Your task to perform on an android device: change the upload size in google photos Image 0: 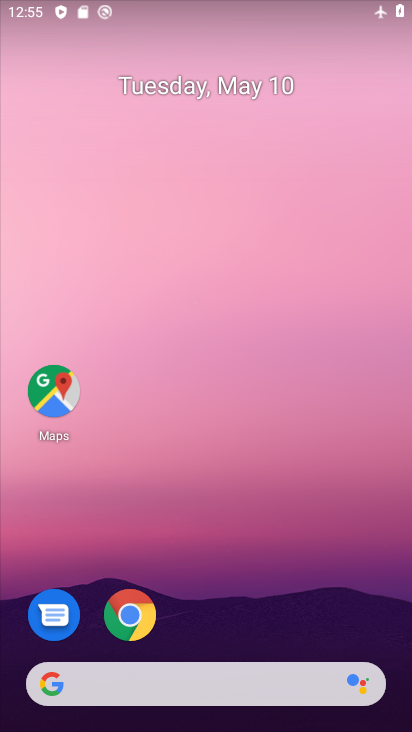
Step 0: drag from (235, 638) to (284, 81)
Your task to perform on an android device: change the upload size in google photos Image 1: 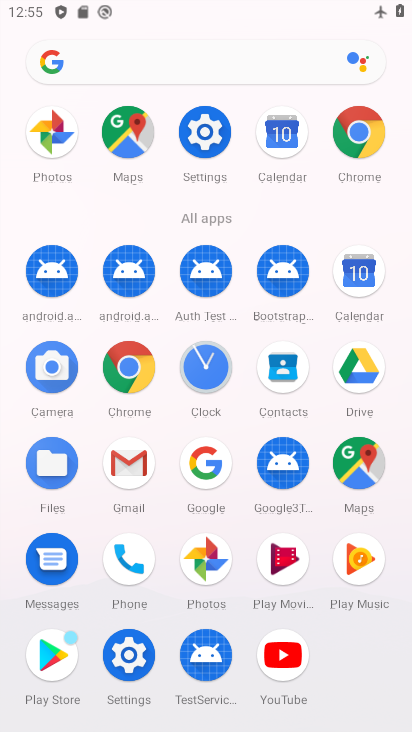
Step 1: click (201, 549)
Your task to perform on an android device: change the upload size in google photos Image 2: 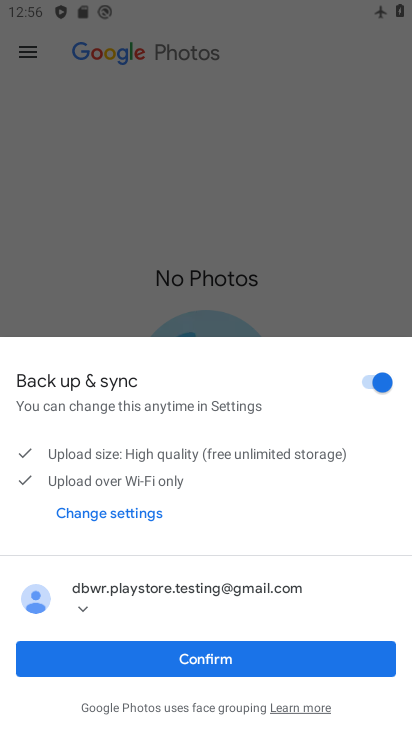
Step 2: click (221, 661)
Your task to perform on an android device: change the upload size in google photos Image 3: 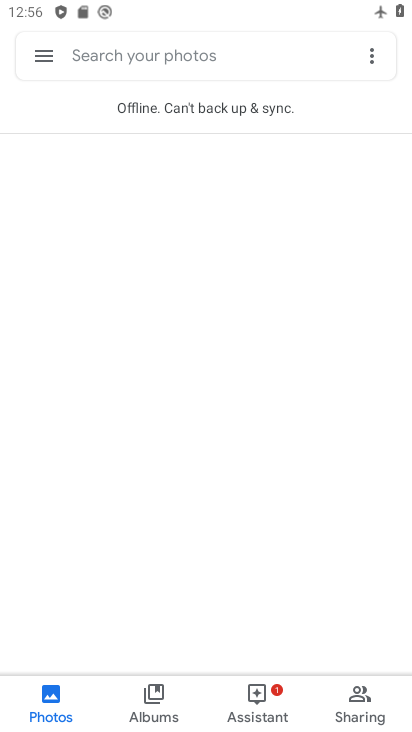
Step 3: click (53, 62)
Your task to perform on an android device: change the upload size in google photos Image 4: 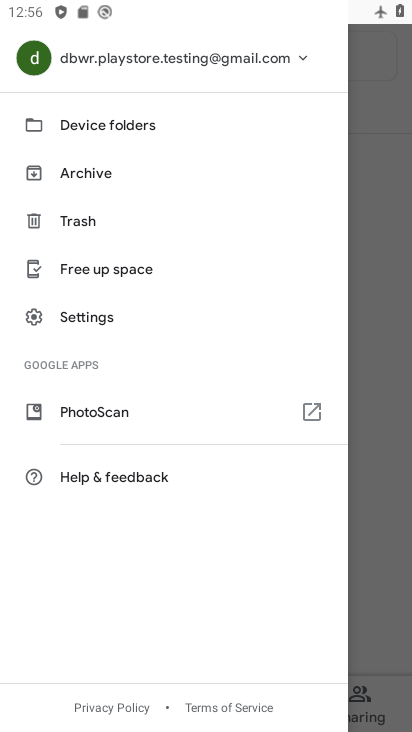
Step 4: click (93, 319)
Your task to perform on an android device: change the upload size in google photos Image 5: 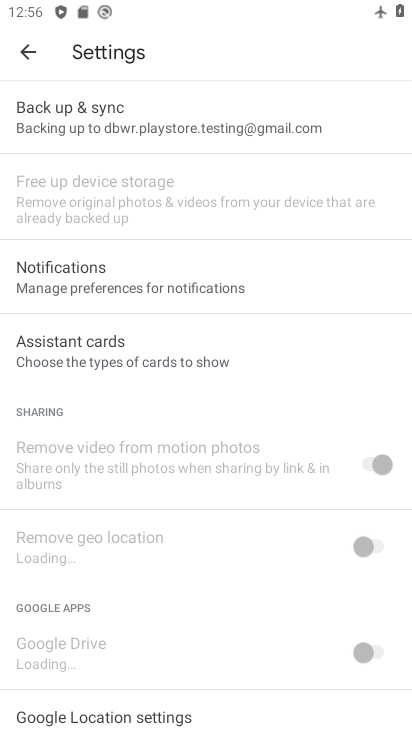
Step 5: click (134, 108)
Your task to perform on an android device: change the upload size in google photos Image 6: 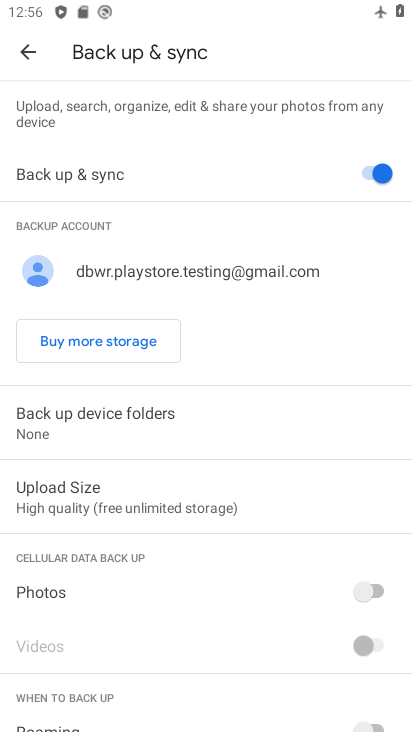
Step 6: click (143, 499)
Your task to perform on an android device: change the upload size in google photos Image 7: 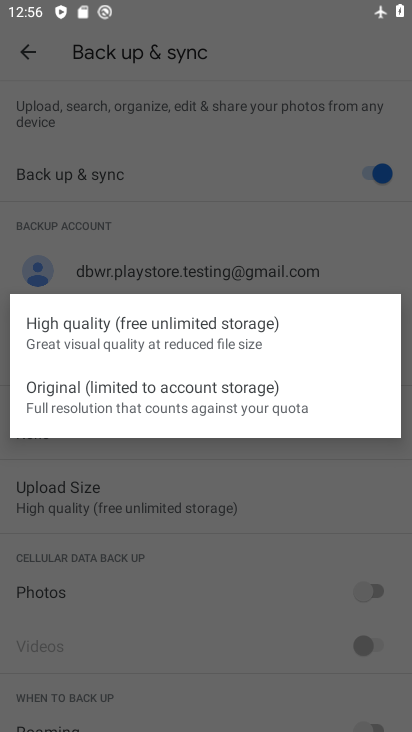
Step 7: click (170, 395)
Your task to perform on an android device: change the upload size in google photos Image 8: 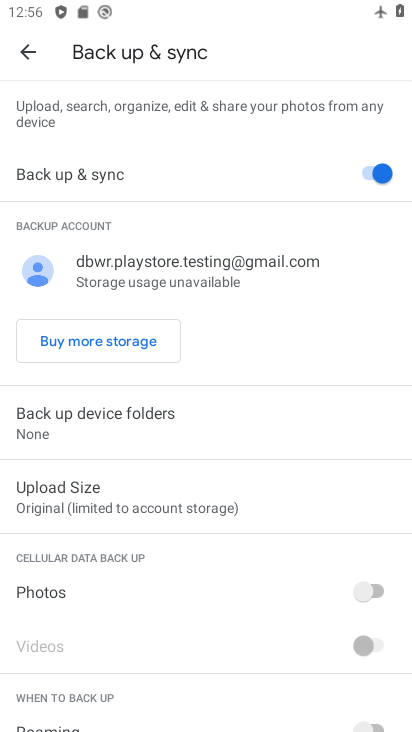
Step 8: task complete